Your task to perform on an android device: Turn on the flashlight Image 0: 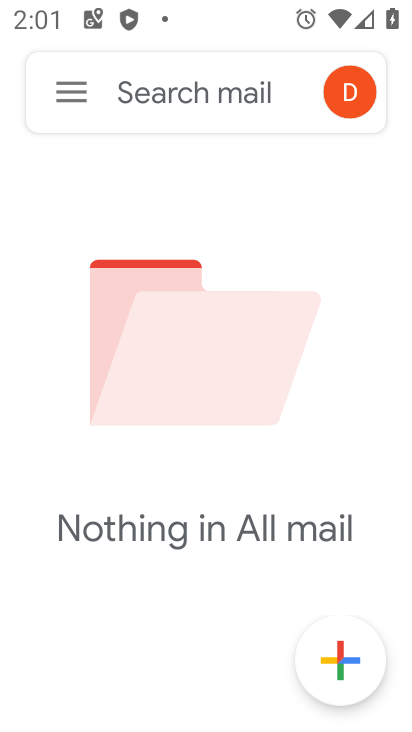
Step 0: press home button
Your task to perform on an android device: Turn on the flashlight Image 1: 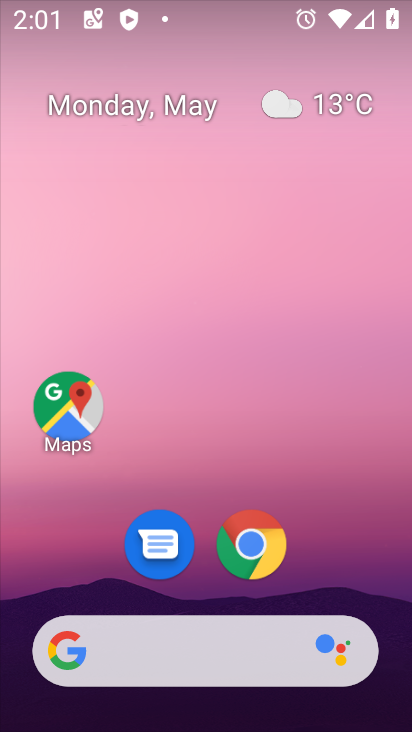
Step 1: drag from (243, 7) to (255, 383)
Your task to perform on an android device: Turn on the flashlight Image 2: 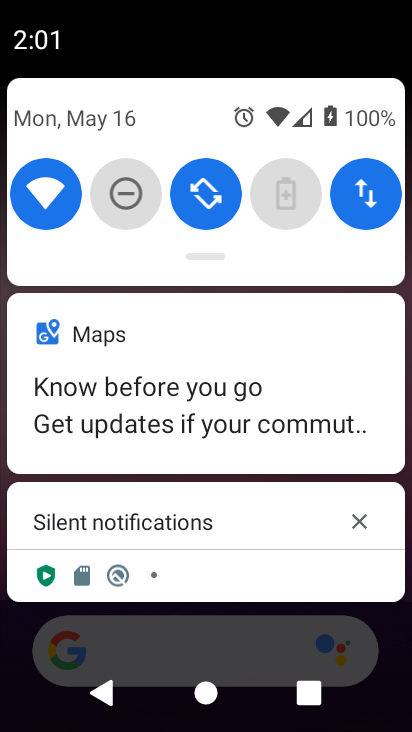
Step 2: drag from (213, 255) to (195, 423)
Your task to perform on an android device: Turn on the flashlight Image 3: 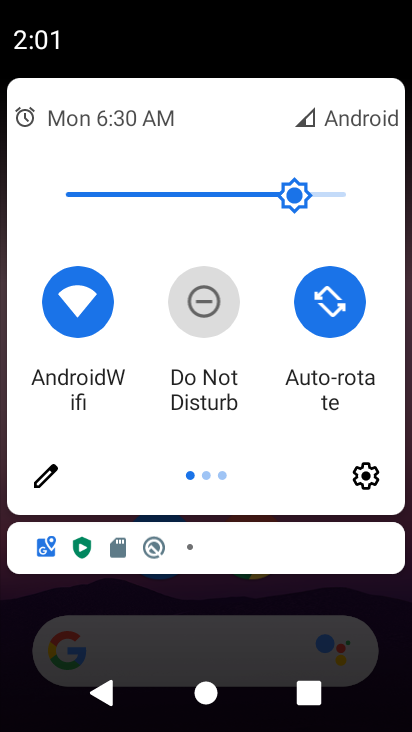
Step 3: click (47, 475)
Your task to perform on an android device: Turn on the flashlight Image 4: 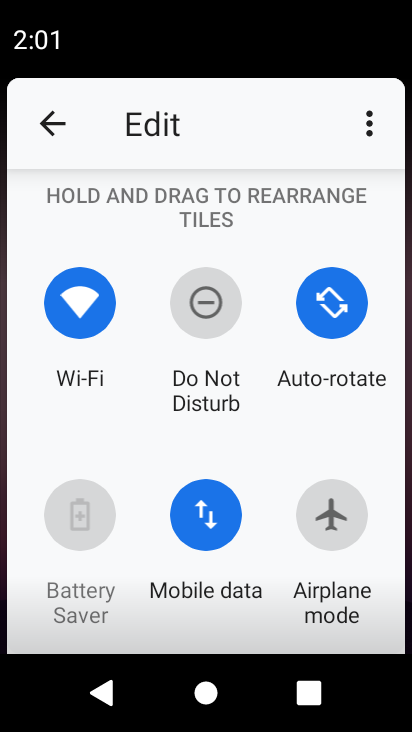
Step 4: task complete